Your task to perform on an android device: turn off improve location accuracy Image 0: 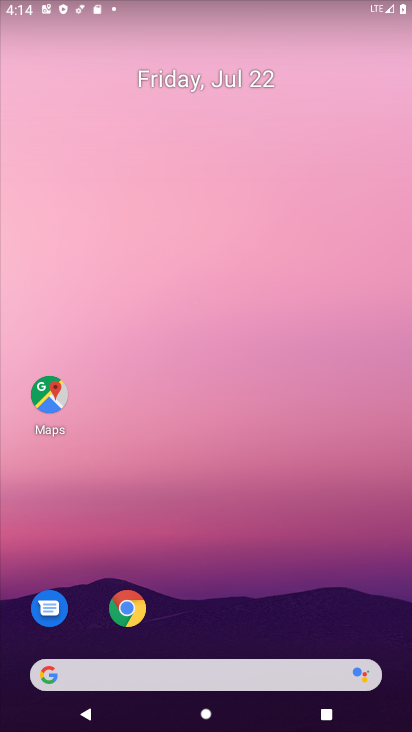
Step 0: click (245, 195)
Your task to perform on an android device: turn off improve location accuracy Image 1: 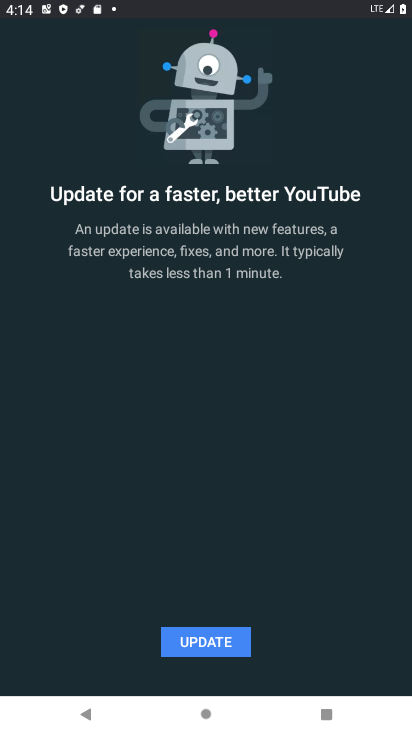
Step 1: press home button
Your task to perform on an android device: turn off improve location accuracy Image 2: 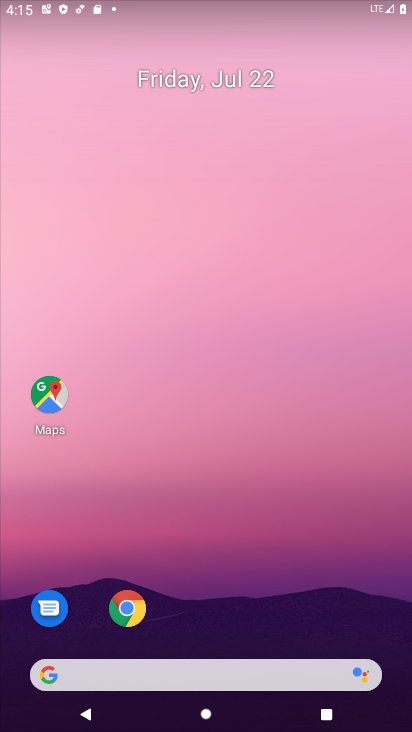
Step 2: drag from (255, 726) to (239, 105)
Your task to perform on an android device: turn off improve location accuracy Image 3: 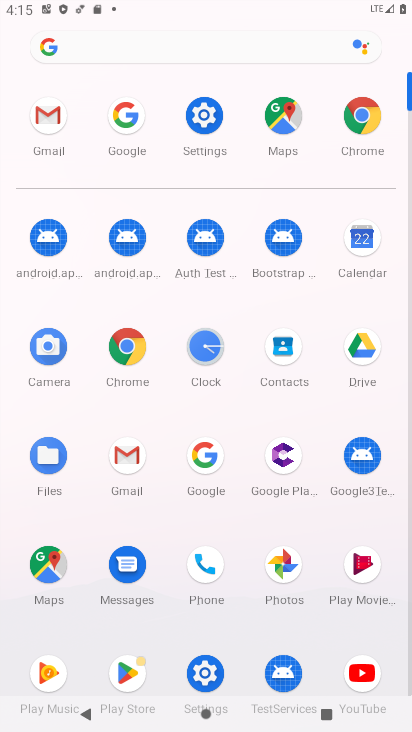
Step 3: click (210, 116)
Your task to perform on an android device: turn off improve location accuracy Image 4: 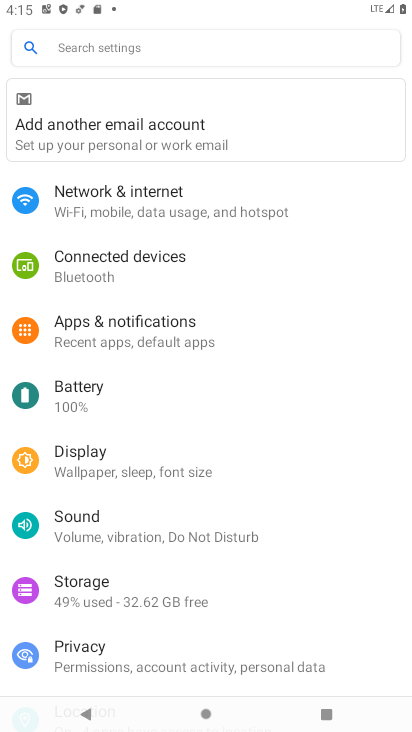
Step 4: drag from (92, 610) to (79, 349)
Your task to perform on an android device: turn off improve location accuracy Image 5: 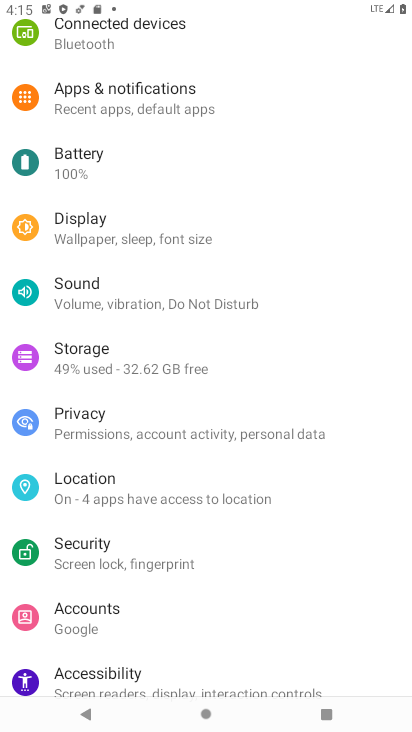
Step 5: click (89, 489)
Your task to perform on an android device: turn off improve location accuracy Image 6: 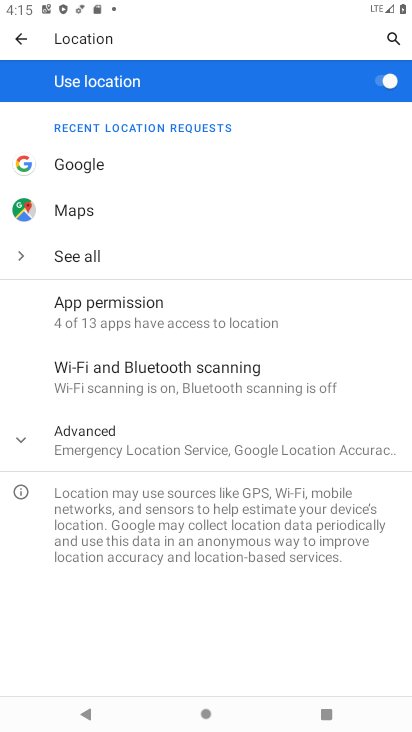
Step 6: click (129, 446)
Your task to perform on an android device: turn off improve location accuracy Image 7: 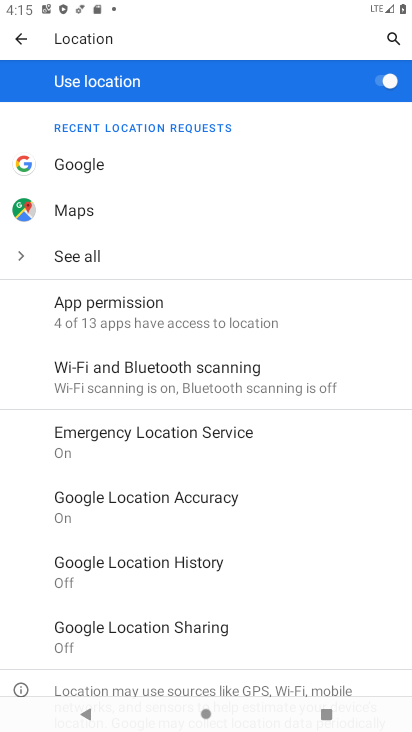
Step 7: click (151, 500)
Your task to perform on an android device: turn off improve location accuracy Image 8: 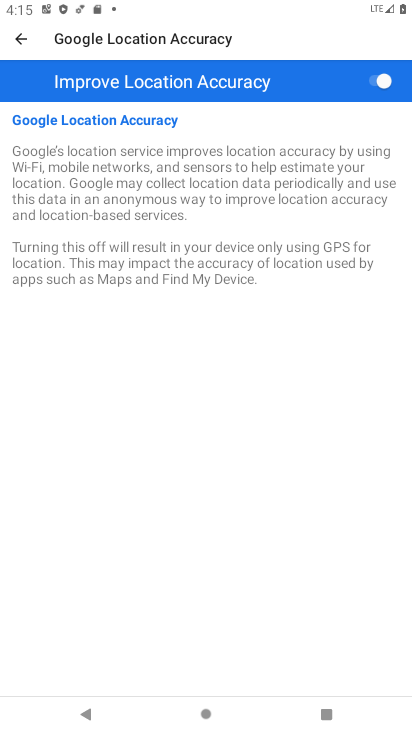
Step 8: task complete